Your task to perform on an android device: set the timer Image 0: 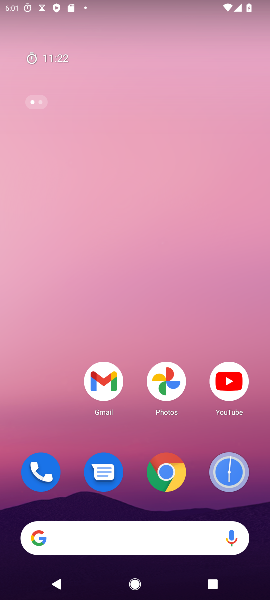
Step 0: press home button
Your task to perform on an android device: set the timer Image 1: 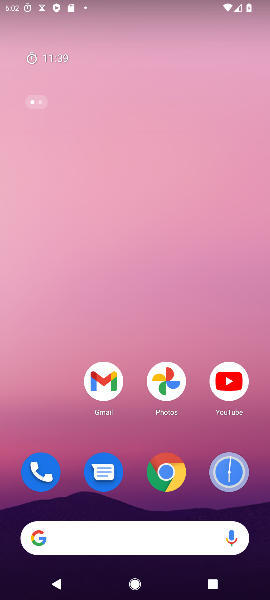
Step 1: click (226, 478)
Your task to perform on an android device: set the timer Image 2: 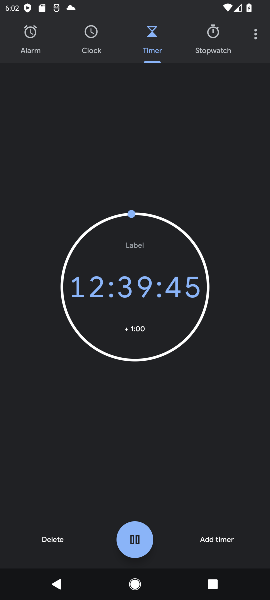
Step 2: click (148, 30)
Your task to perform on an android device: set the timer Image 3: 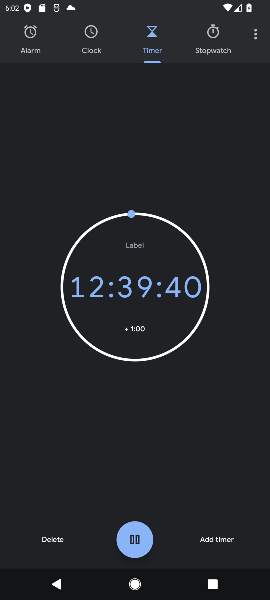
Step 3: task complete